Your task to perform on an android device: Go to Yahoo.com Image 0: 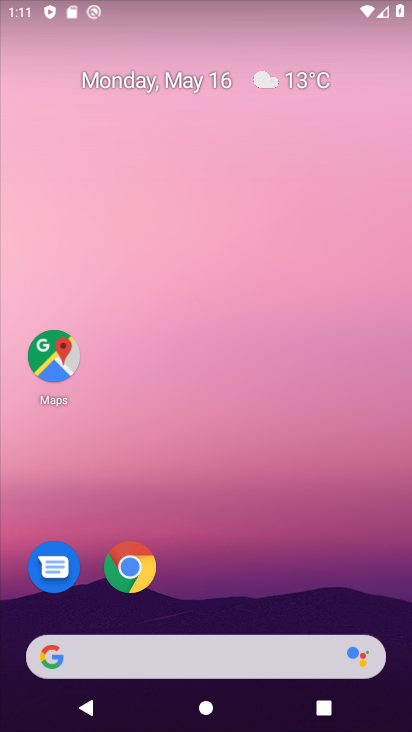
Step 0: drag from (143, 634) to (335, 39)
Your task to perform on an android device: Go to Yahoo.com Image 1: 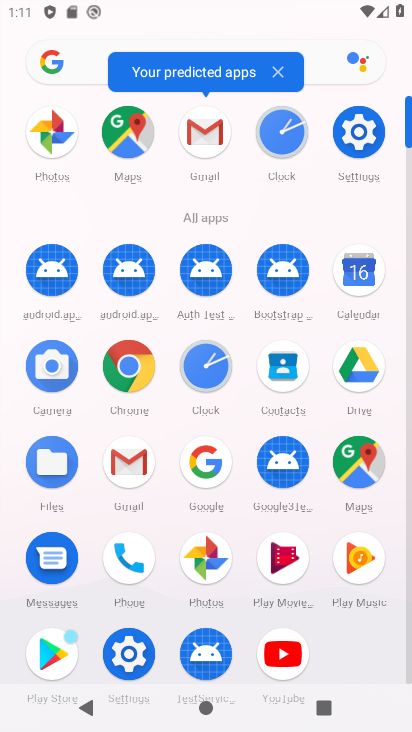
Step 1: click (127, 352)
Your task to perform on an android device: Go to Yahoo.com Image 2: 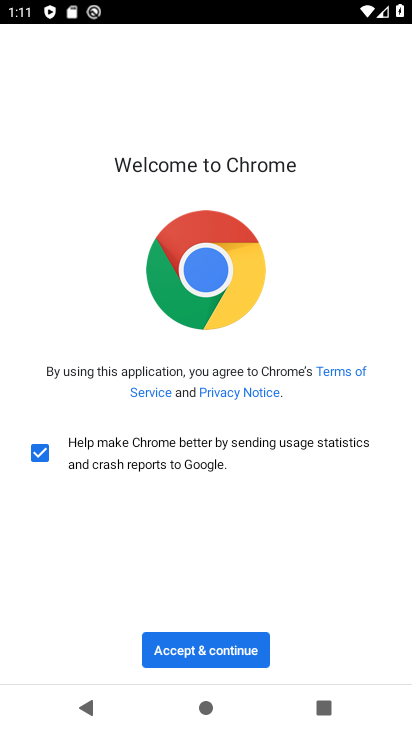
Step 2: click (233, 660)
Your task to perform on an android device: Go to Yahoo.com Image 3: 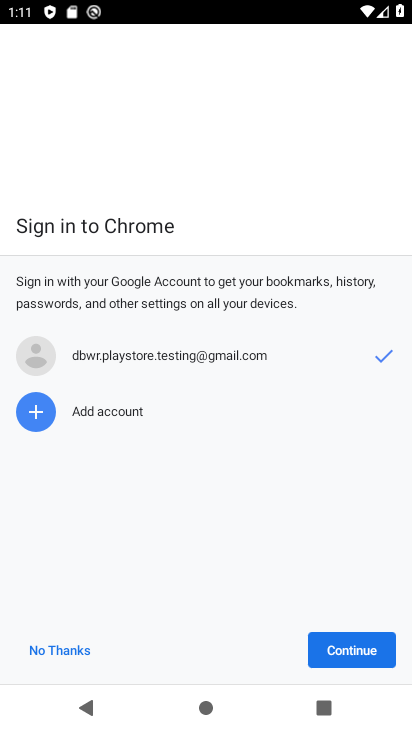
Step 3: click (373, 643)
Your task to perform on an android device: Go to Yahoo.com Image 4: 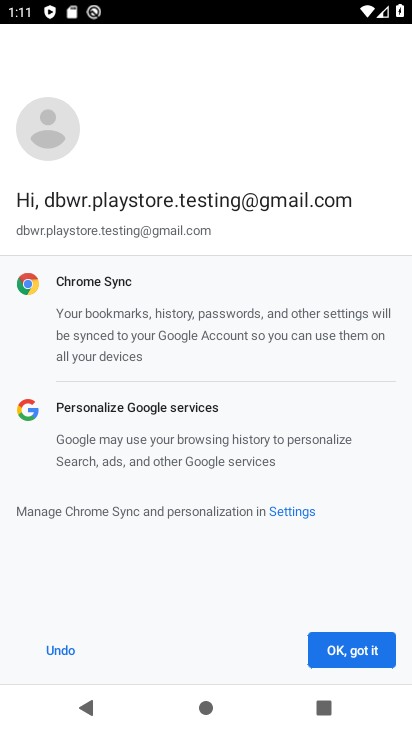
Step 4: click (335, 652)
Your task to perform on an android device: Go to Yahoo.com Image 5: 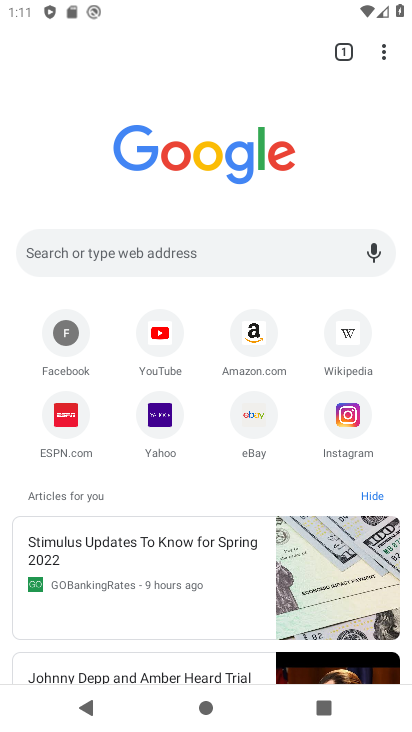
Step 5: click (154, 422)
Your task to perform on an android device: Go to Yahoo.com Image 6: 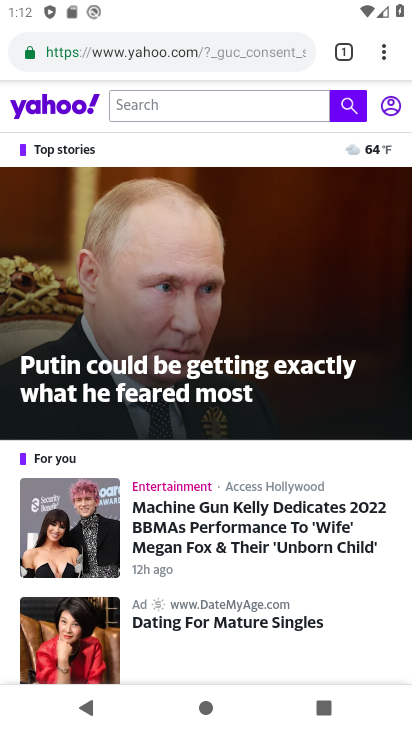
Step 6: task complete